Your task to perform on an android device: open a new tab in the chrome app Image 0: 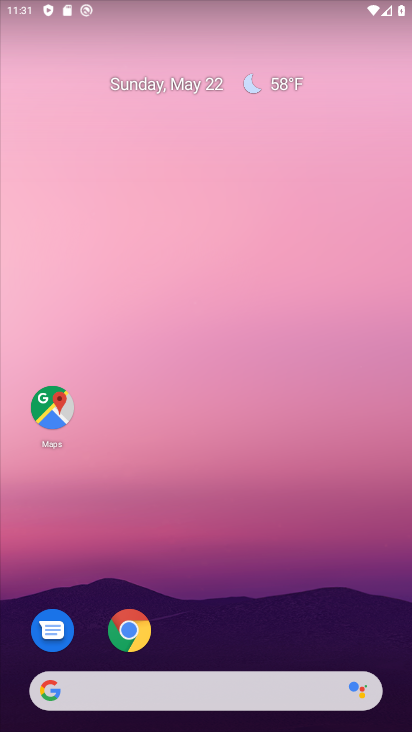
Step 0: click (137, 627)
Your task to perform on an android device: open a new tab in the chrome app Image 1: 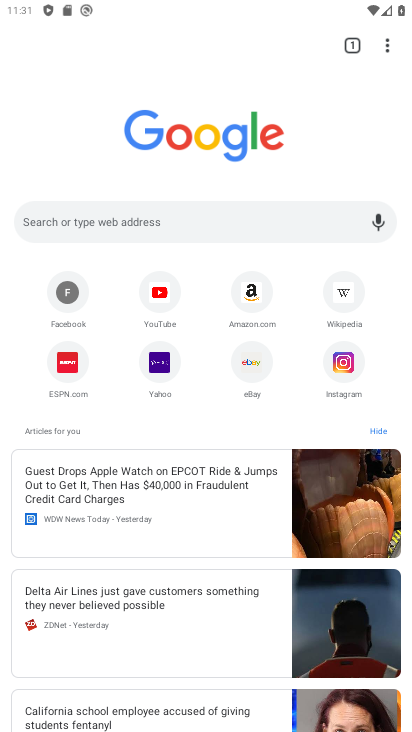
Step 1: click (385, 50)
Your task to perform on an android device: open a new tab in the chrome app Image 2: 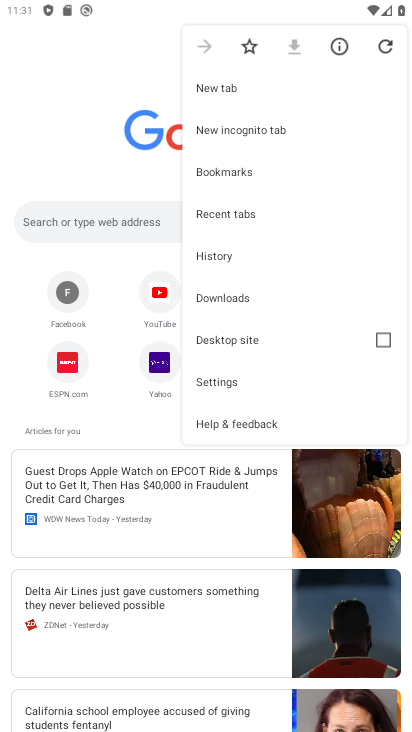
Step 2: click (242, 94)
Your task to perform on an android device: open a new tab in the chrome app Image 3: 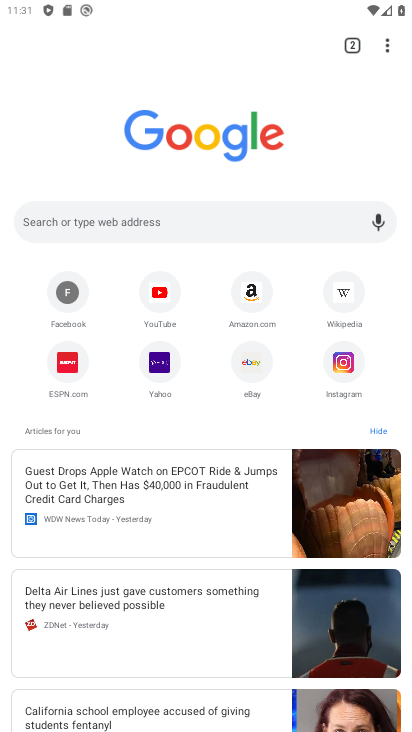
Step 3: task complete